Your task to perform on an android device: install app "Messages" Image 0: 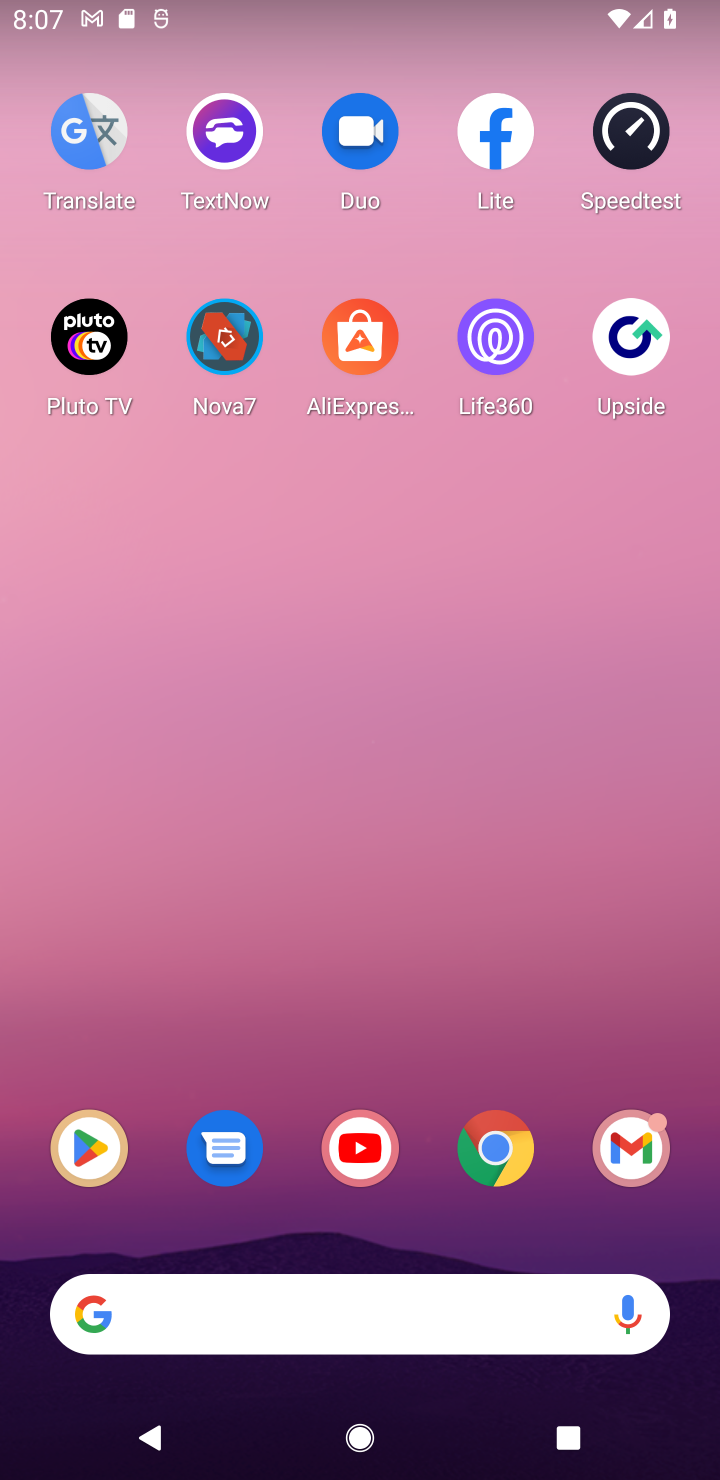
Step 0: drag from (432, 1139) to (150, 11)
Your task to perform on an android device: install app "Messages" Image 1: 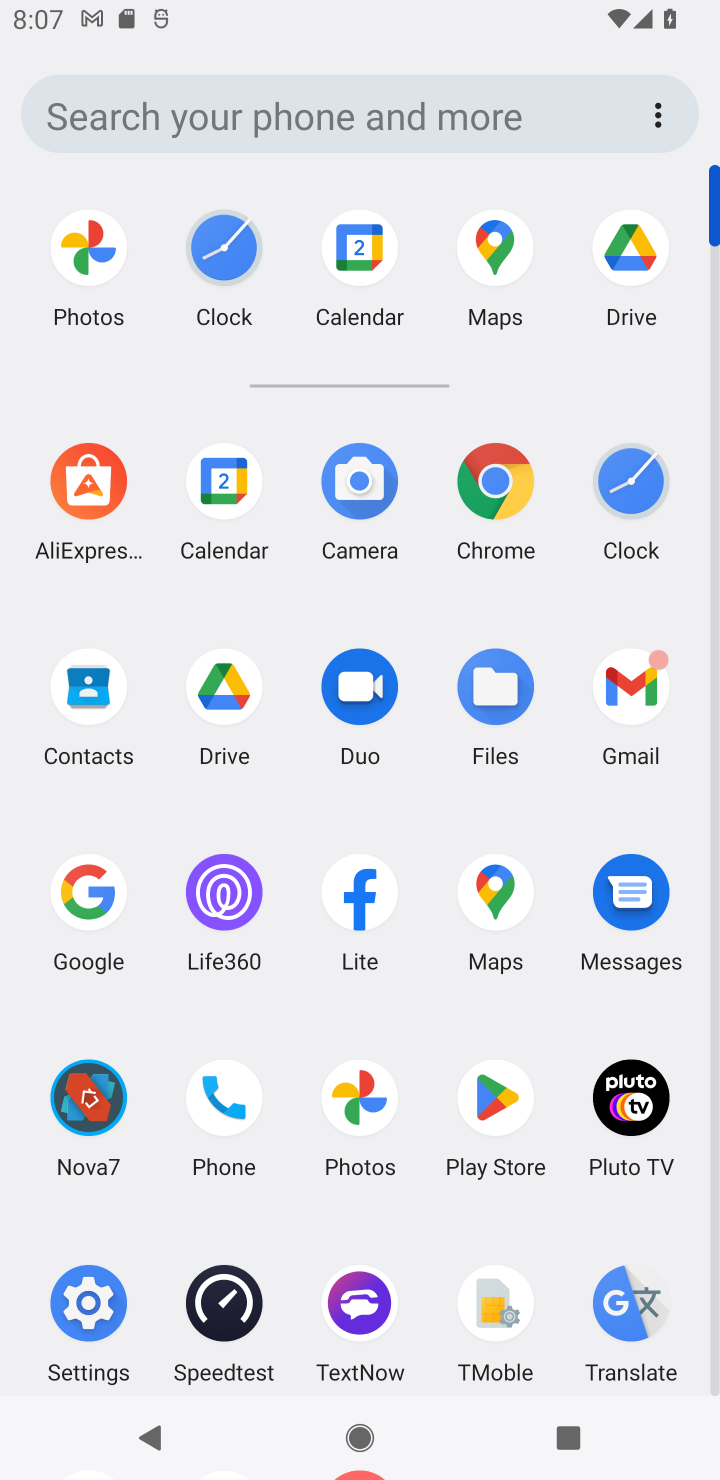
Step 1: click (516, 1105)
Your task to perform on an android device: install app "Messages" Image 2: 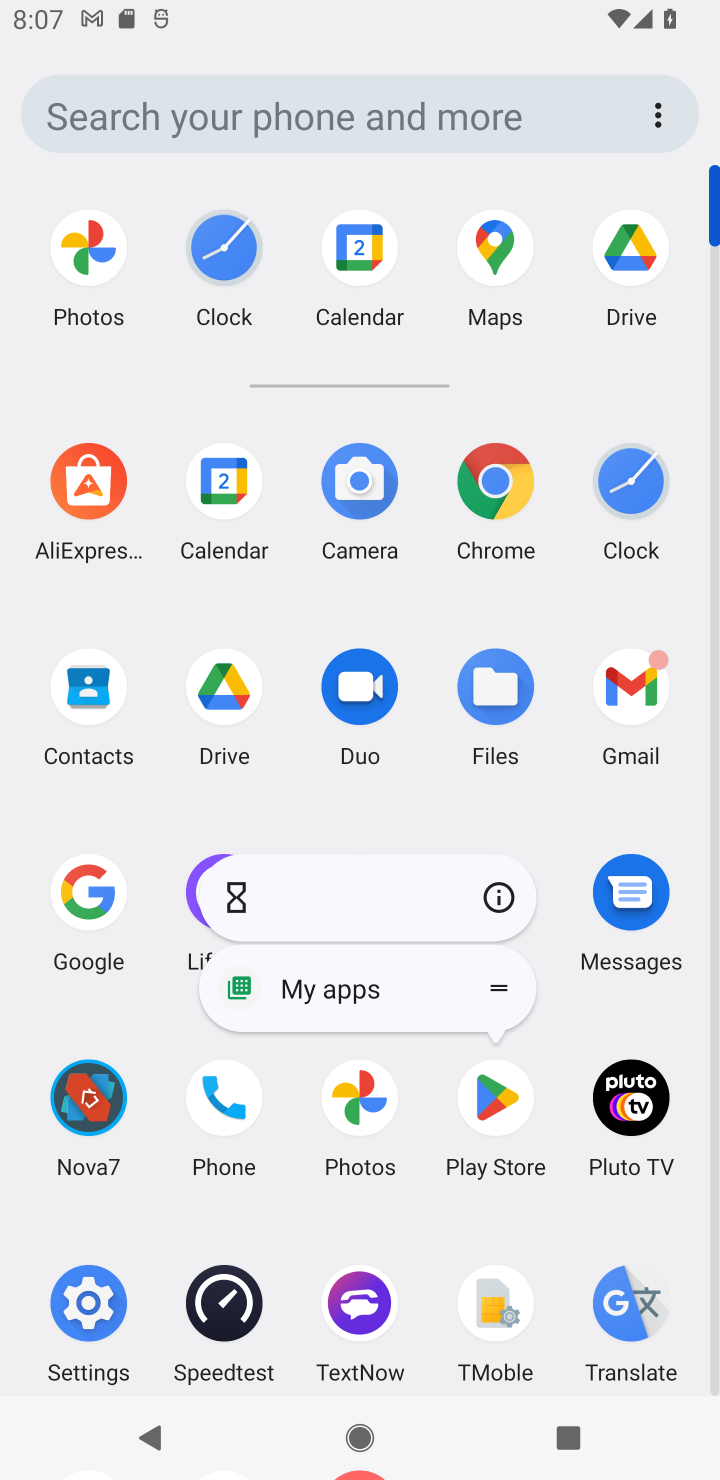
Step 2: click (510, 1092)
Your task to perform on an android device: install app "Messages" Image 3: 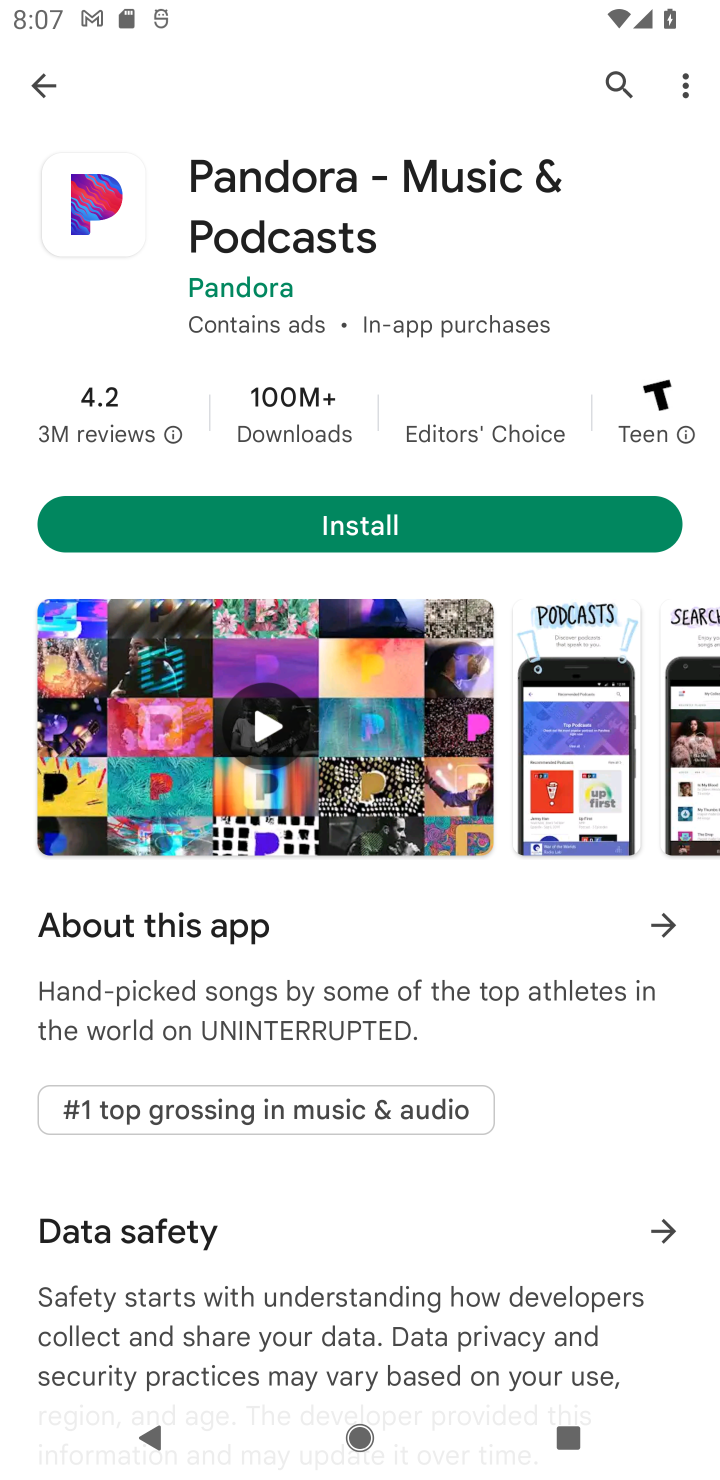
Step 3: press back button
Your task to perform on an android device: install app "Messages" Image 4: 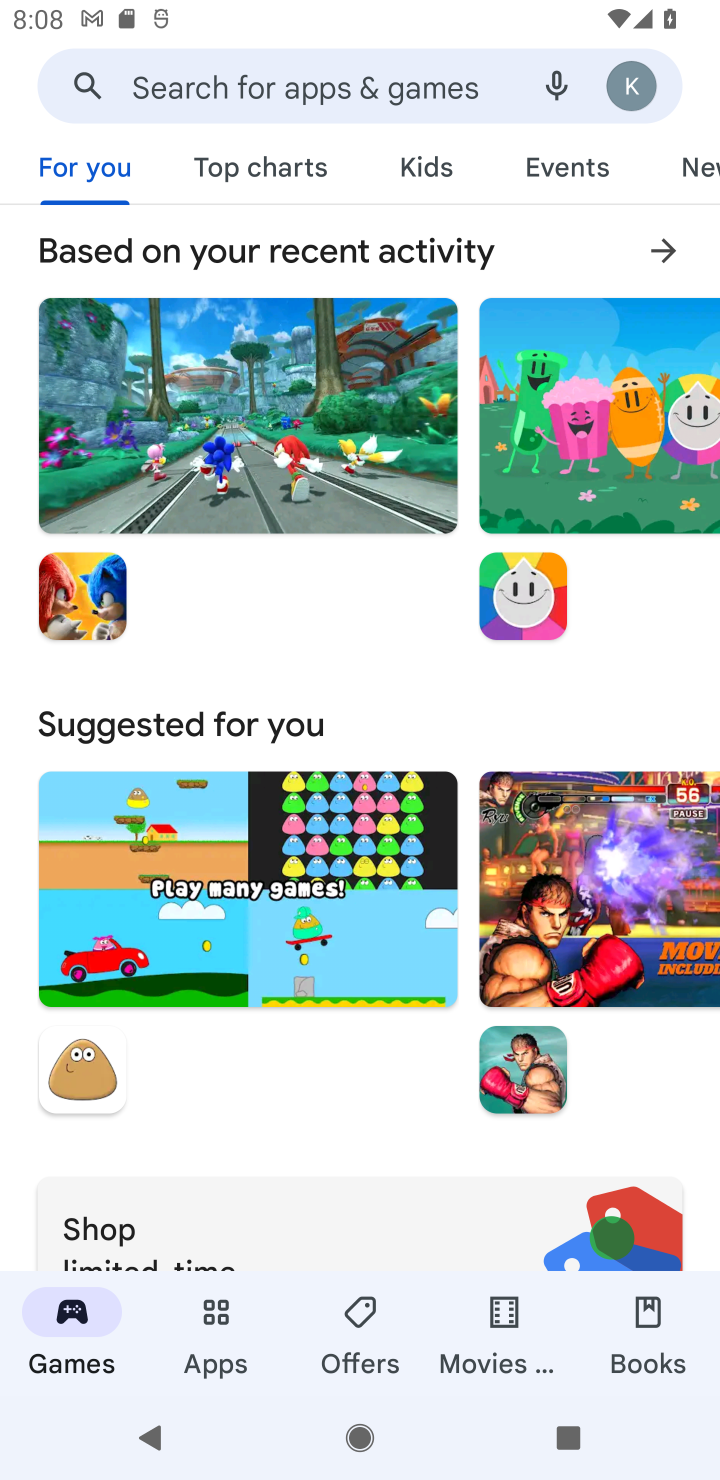
Step 4: click (212, 97)
Your task to perform on an android device: install app "Messages" Image 5: 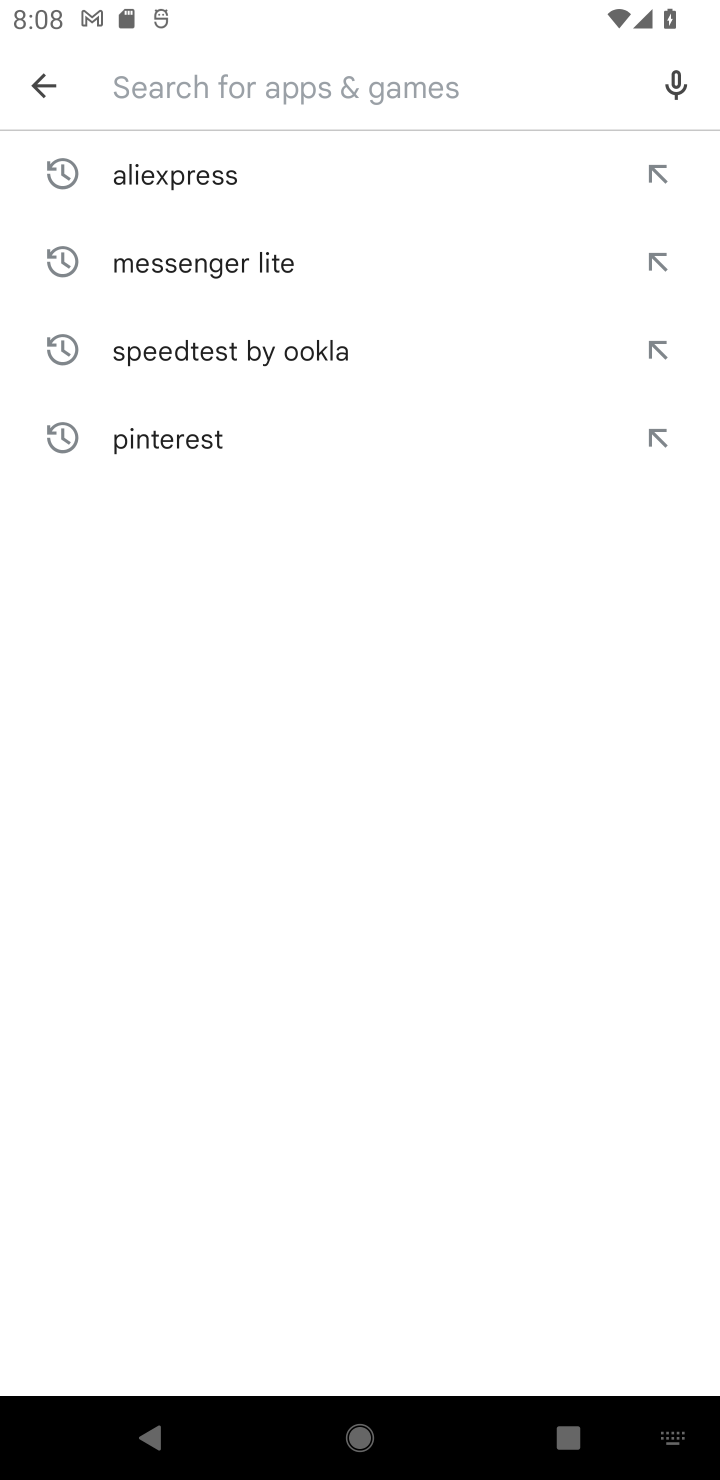
Step 5: type "Messages"
Your task to perform on an android device: install app "Messages" Image 6: 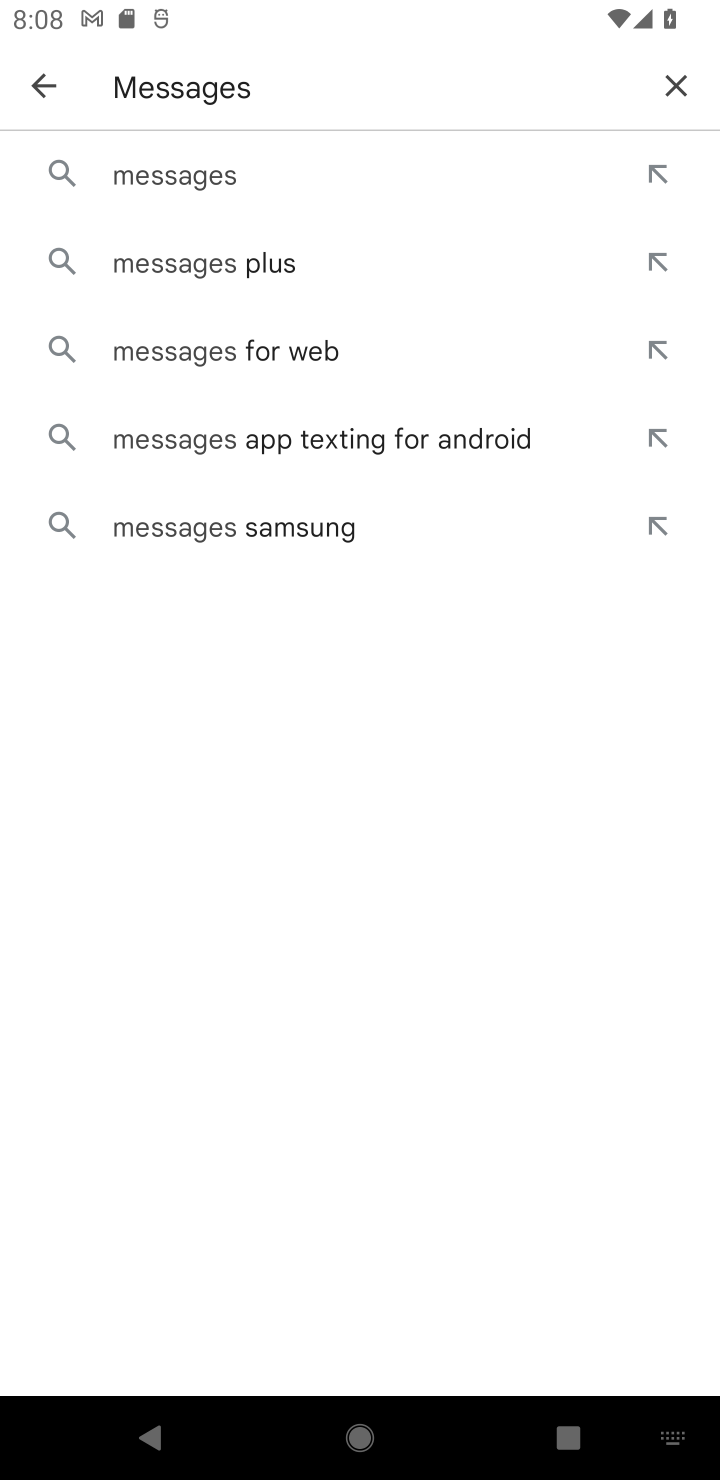
Step 6: click (239, 169)
Your task to perform on an android device: install app "Messages" Image 7: 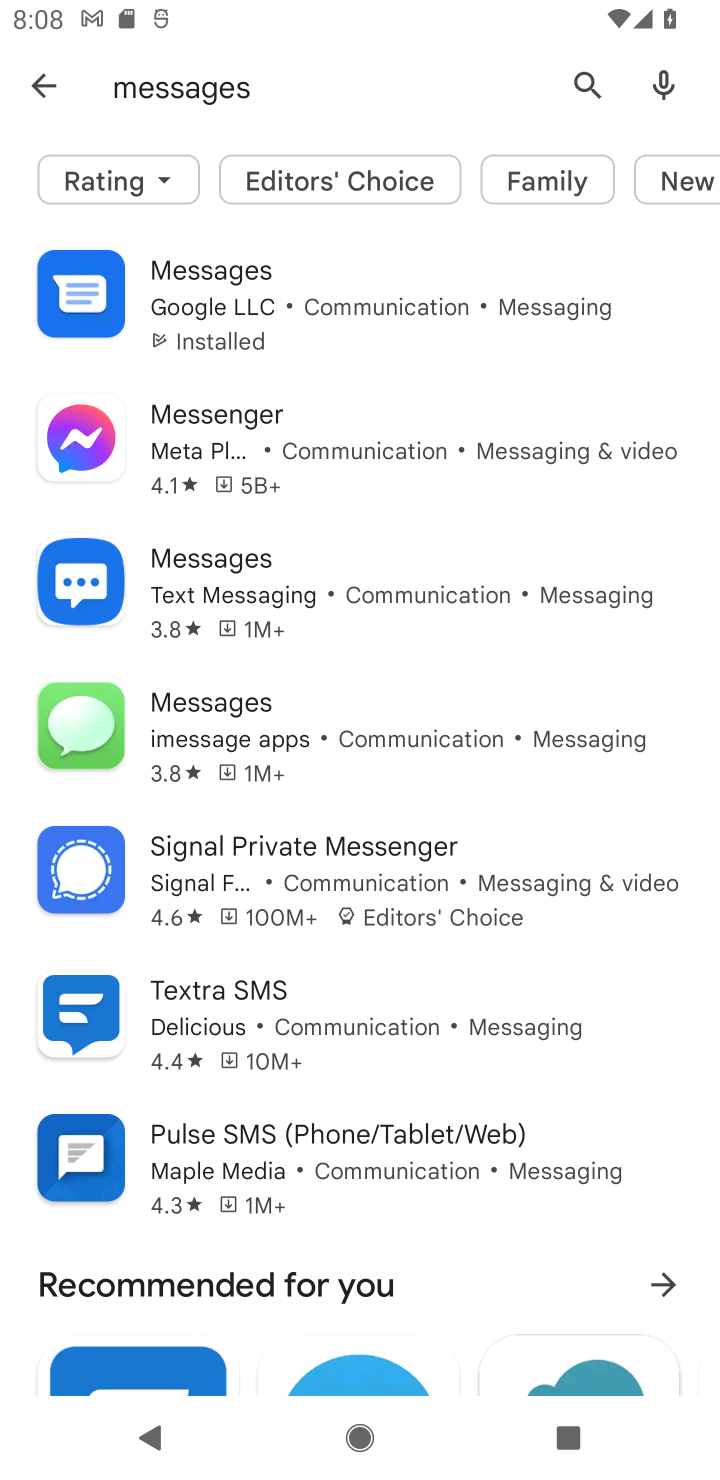
Step 7: click (245, 296)
Your task to perform on an android device: install app "Messages" Image 8: 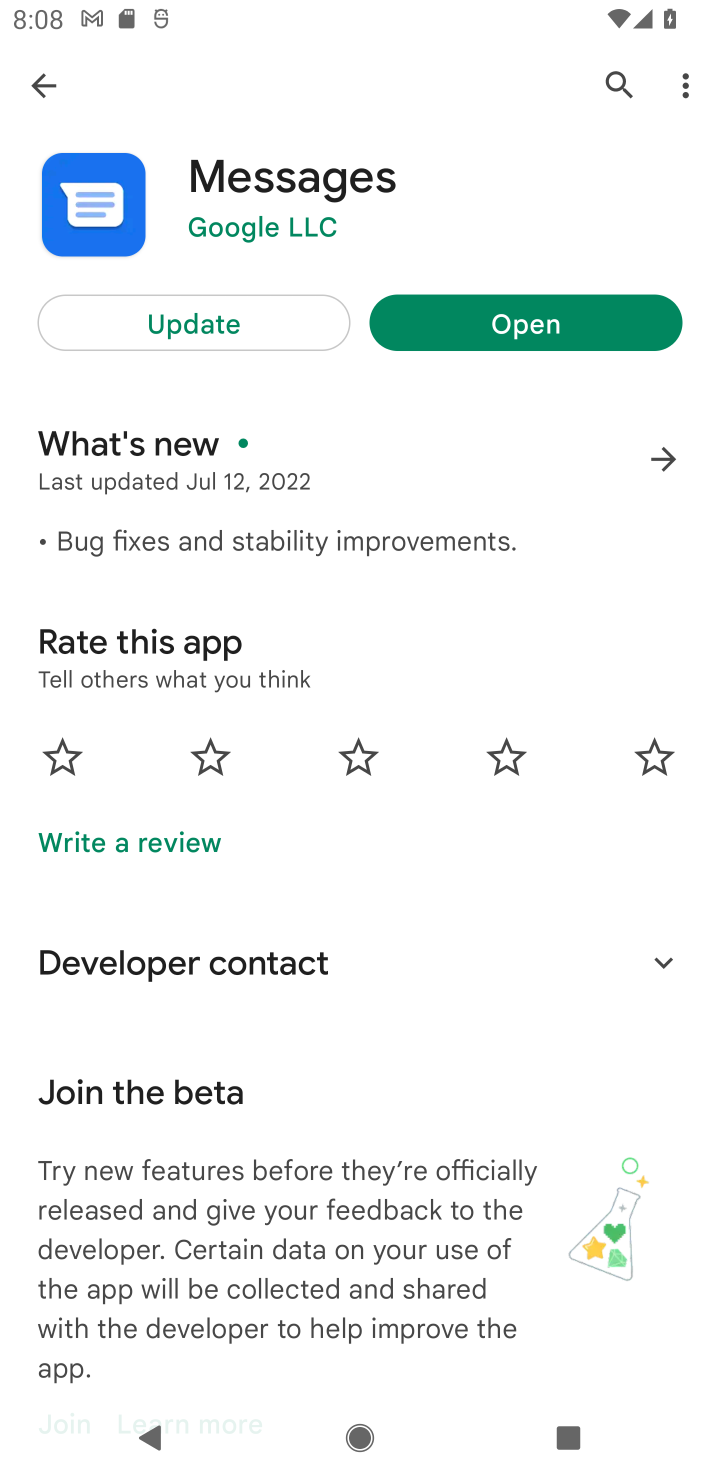
Step 8: task complete